Your task to perform on an android device: Open Google Chrome and click the shortcut for Amazon.com Image 0: 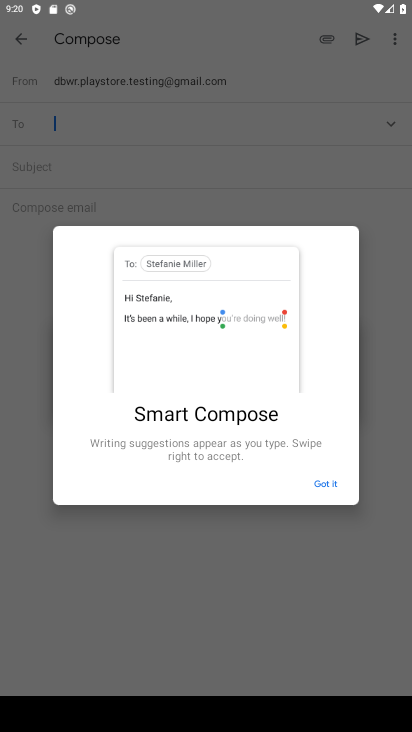
Step 0: press home button
Your task to perform on an android device: Open Google Chrome and click the shortcut for Amazon.com Image 1: 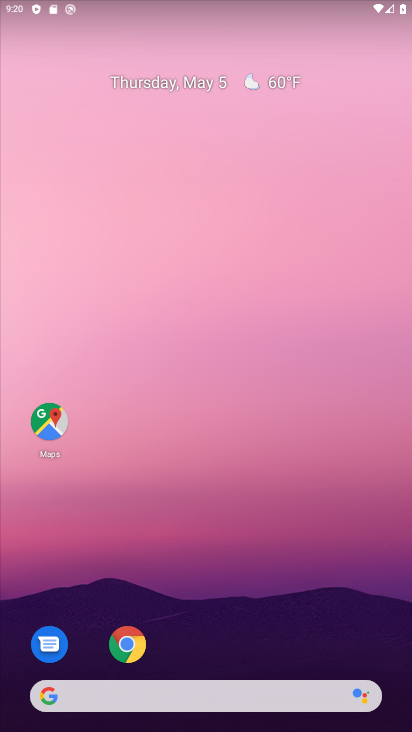
Step 1: drag from (295, 641) to (331, 53)
Your task to perform on an android device: Open Google Chrome and click the shortcut for Amazon.com Image 2: 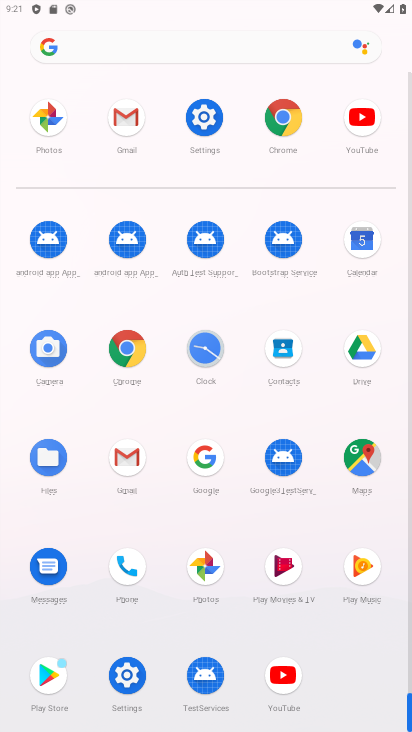
Step 2: click (124, 340)
Your task to perform on an android device: Open Google Chrome and click the shortcut for Amazon.com Image 3: 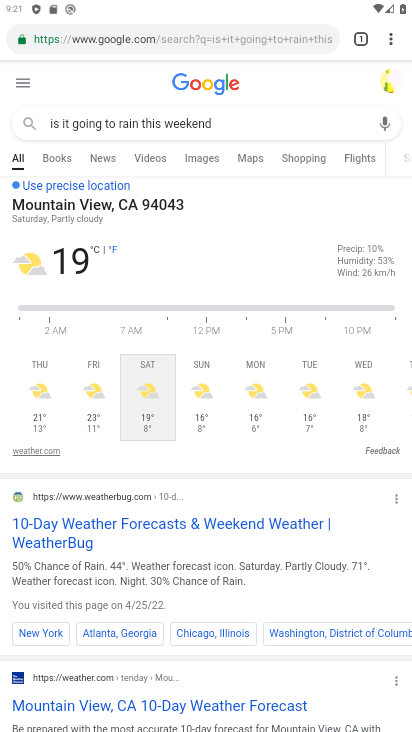
Step 3: drag from (392, 44) to (305, 79)
Your task to perform on an android device: Open Google Chrome and click the shortcut for Amazon.com Image 4: 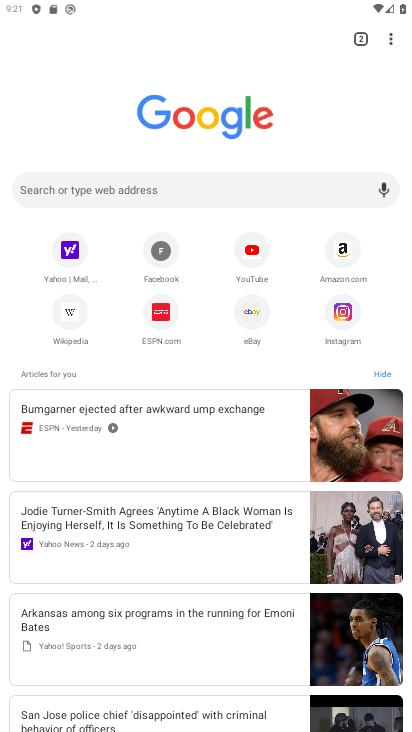
Step 4: click (342, 264)
Your task to perform on an android device: Open Google Chrome and click the shortcut for Amazon.com Image 5: 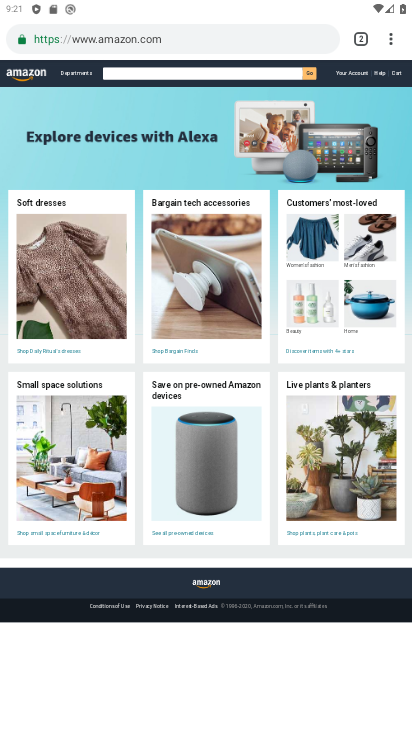
Step 5: task complete